Your task to perform on an android device: allow notifications from all sites in the chrome app Image 0: 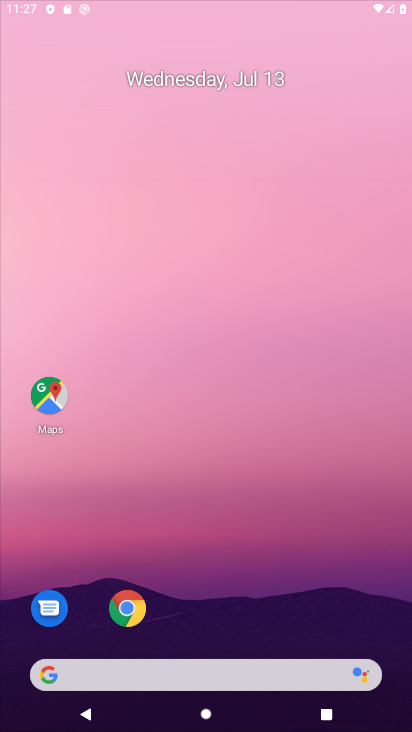
Step 0: click (276, 725)
Your task to perform on an android device: allow notifications from all sites in the chrome app Image 1: 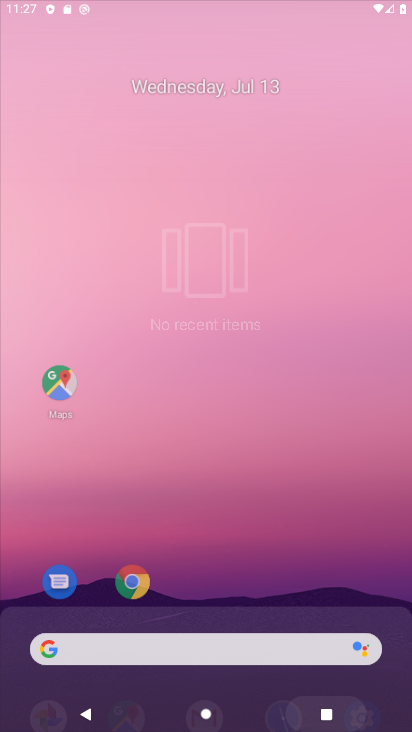
Step 1: drag from (202, 547) to (203, 16)
Your task to perform on an android device: allow notifications from all sites in the chrome app Image 2: 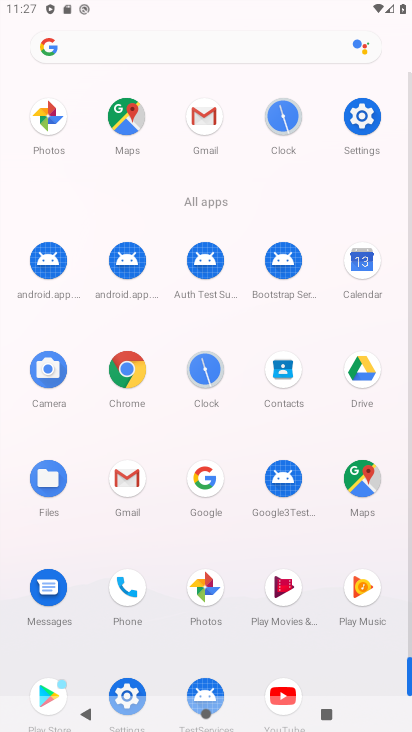
Step 2: click (121, 367)
Your task to perform on an android device: allow notifications from all sites in the chrome app Image 3: 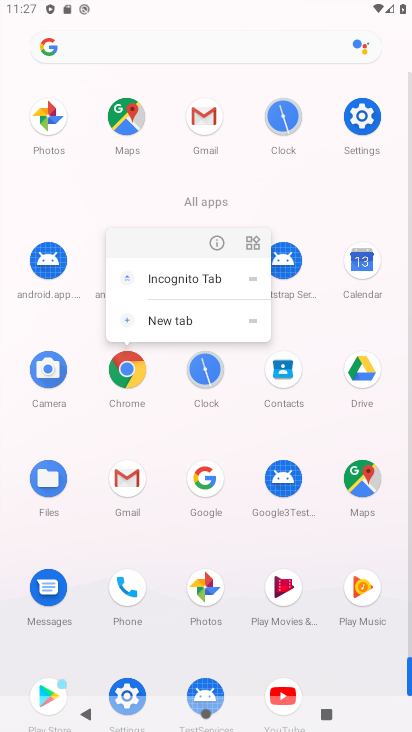
Step 3: click (208, 242)
Your task to perform on an android device: allow notifications from all sites in the chrome app Image 4: 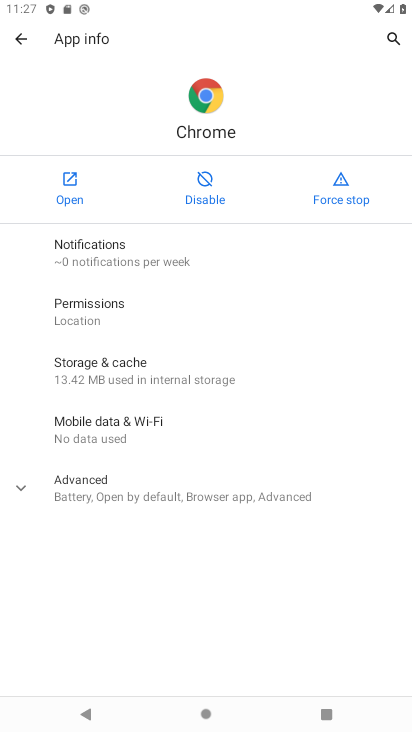
Step 4: click (76, 177)
Your task to perform on an android device: allow notifications from all sites in the chrome app Image 5: 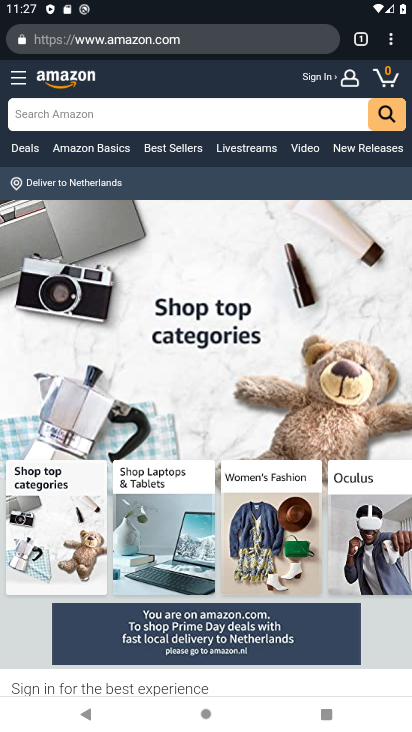
Step 5: click (394, 40)
Your task to perform on an android device: allow notifications from all sites in the chrome app Image 6: 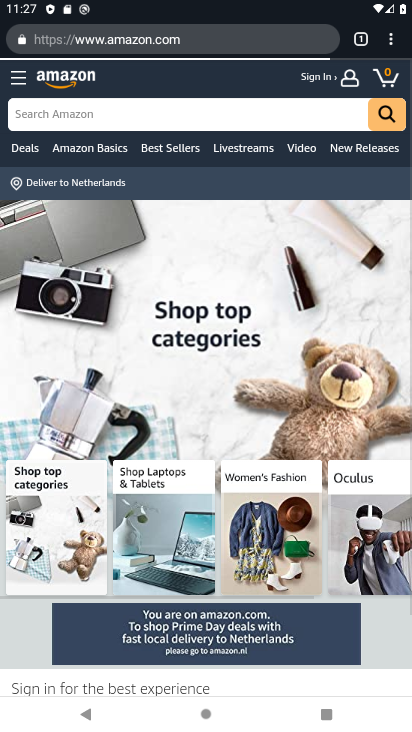
Step 6: click (391, 45)
Your task to perform on an android device: allow notifications from all sites in the chrome app Image 7: 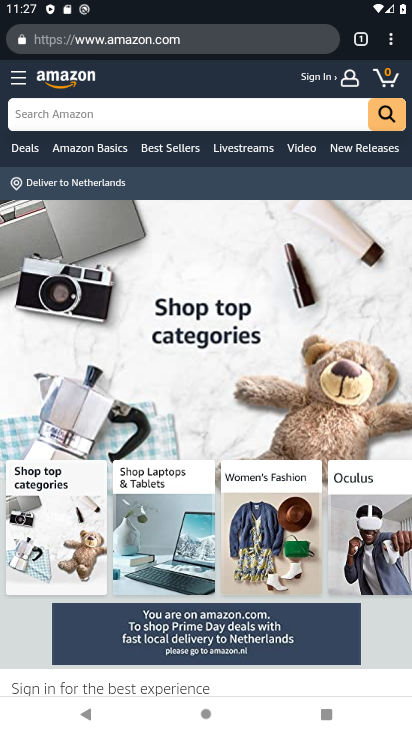
Step 7: drag from (391, 45) to (302, 473)
Your task to perform on an android device: allow notifications from all sites in the chrome app Image 8: 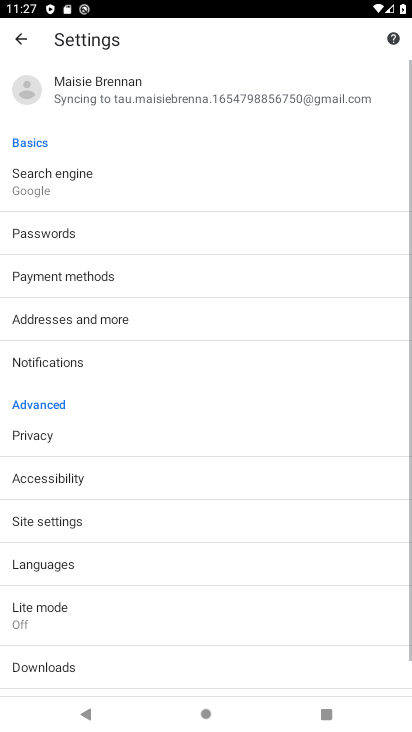
Step 8: drag from (205, 491) to (201, 177)
Your task to perform on an android device: allow notifications from all sites in the chrome app Image 9: 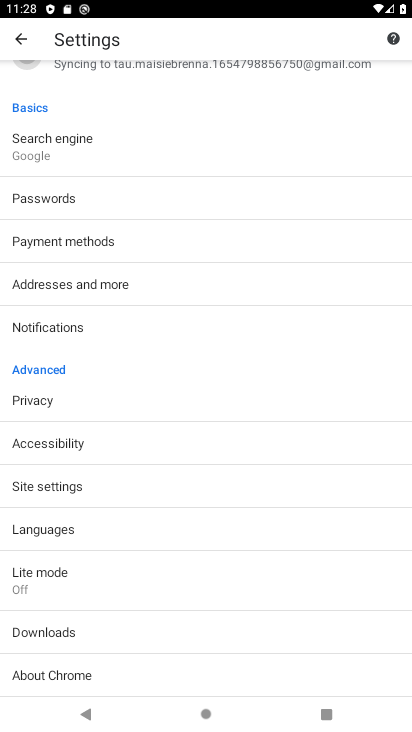
Step 9: drag from (161, 461) to (139, 176)
Your task to perform on an android device: allow notifications from all sites in the chrome app Image 10: 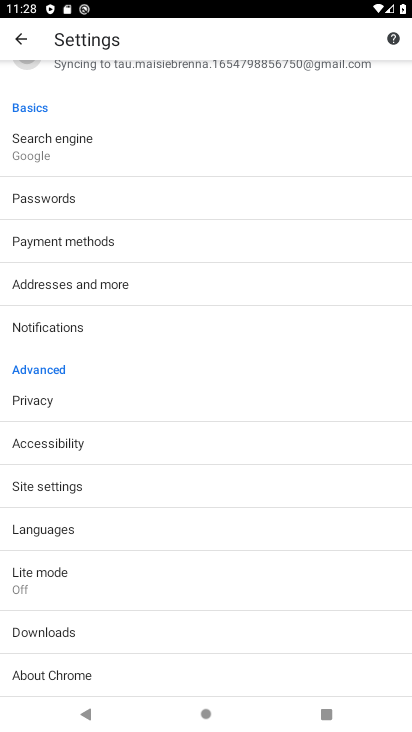
Step 10: drag from (128, 130) to (175, 489)
Your task to perform on an android device: allow notifications from all sites in the chrome app Image 11: 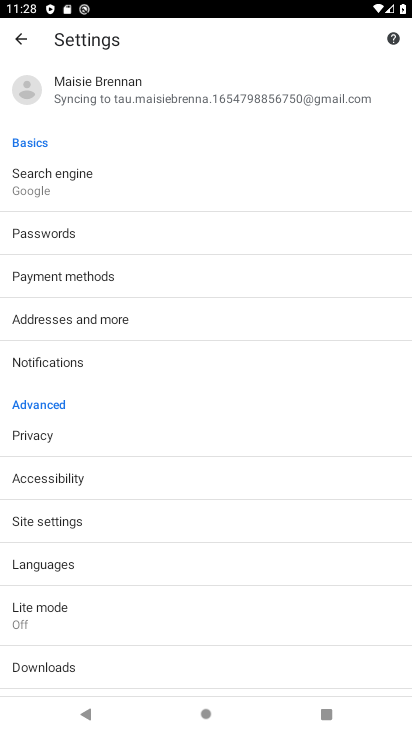
Step 11: drag from (167, 481) to (129, 240)
Your task to perform on an android device: allow notifications from all sites in the chrome app Image 12: 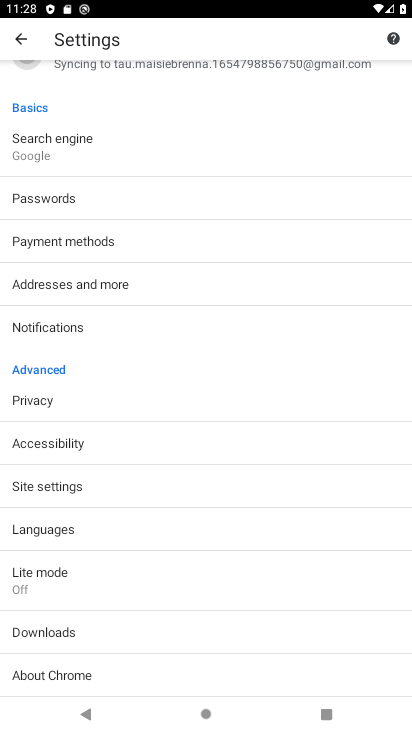
Step 12: drag from (157, 269) to (157, 85)
Your task to perform on an android device: allow notifications from all sites in the chrome app Image 13: 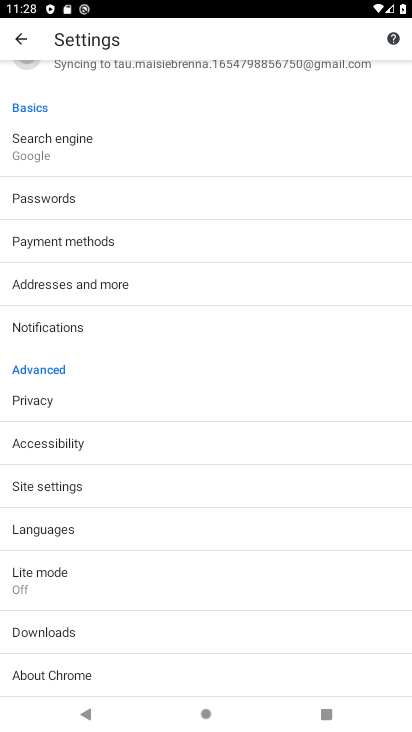
Step 13: drag from (127, 231) to (257, 712)
Your task to perform on an android device: allow notifications from all sites in the chrome app Image 14: 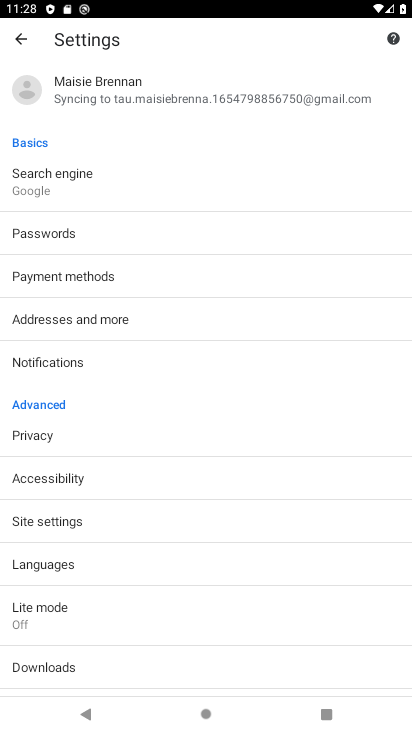
Step 14: click (133, 509)
Your task to perform on an android device: allow notifications from all sites in the chrome app Image 15: 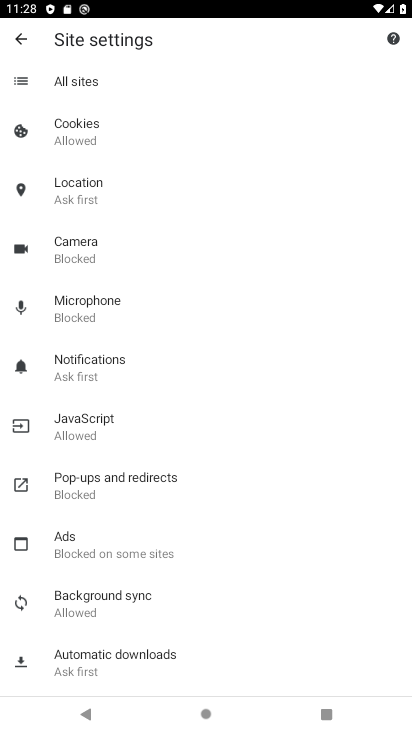
Step 15: click (114, 374)
Your task to perform on an android device: allow notifications from all sites in the chrome app Image 16: 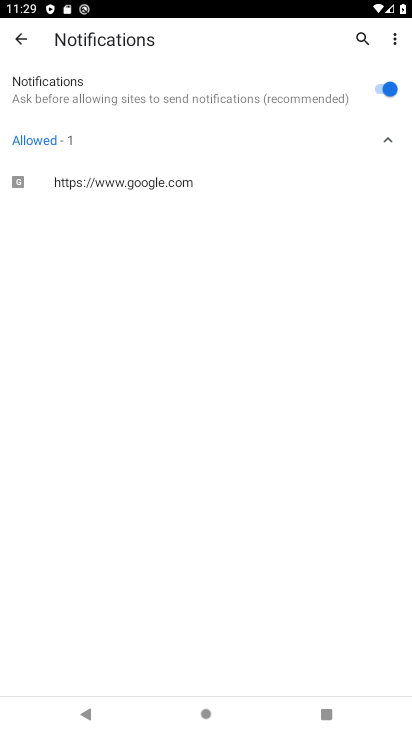
Step 16: task complete